Your task to perform on an android device: Open settings on Google Maps Image 0: 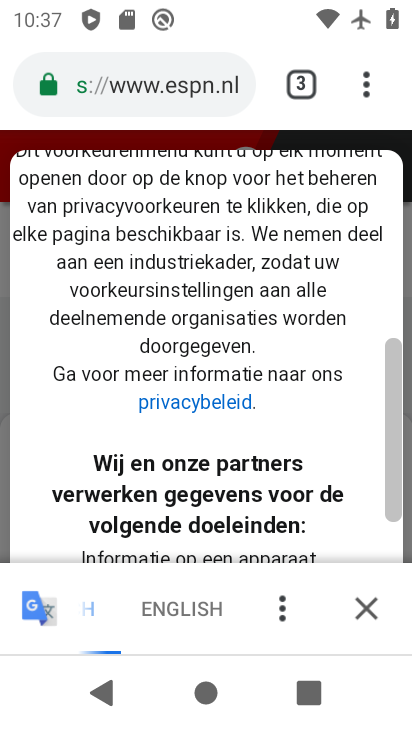
Step 0: press home button
Your task to perform on an android device: Open settings on Google Maps Image 1: 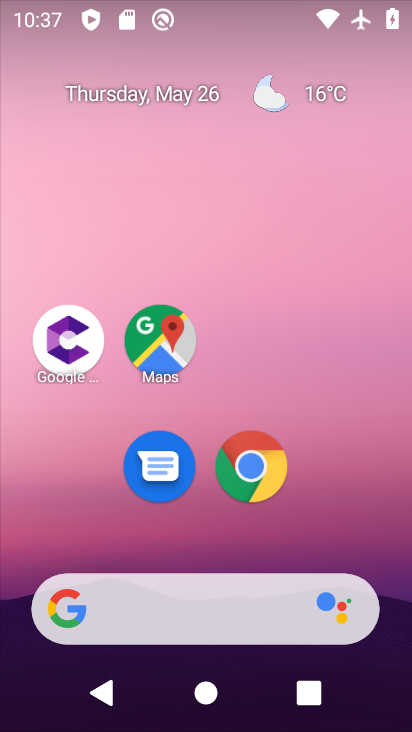
Step 1: click (149, 345)
Your task to perform on an android device: Open settings on Google Maps Image 2: 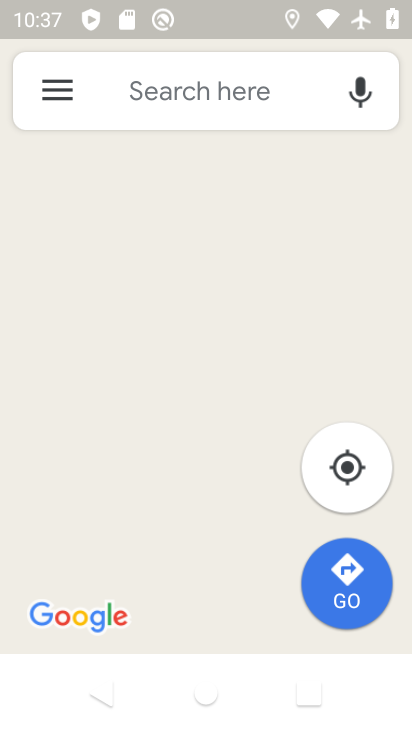
Step 2: click (57, 88)
Your task to perform on an android device: Open settings on Google Maps Image 3: 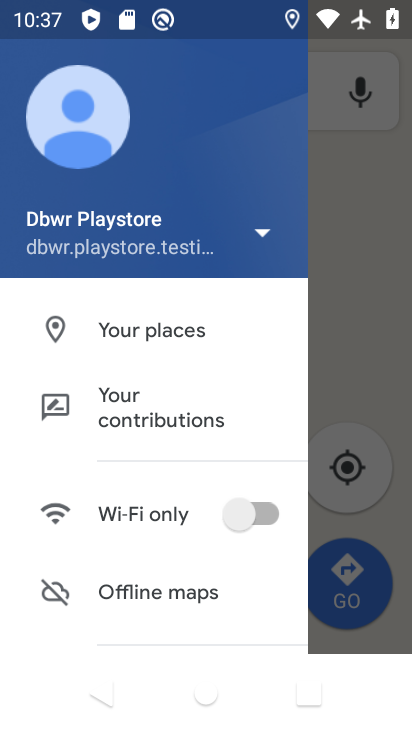
Step 3: drag from (150, 535) to (119, 180)
Your task to perform on an android device: Open settings on Google Maps Image 4: 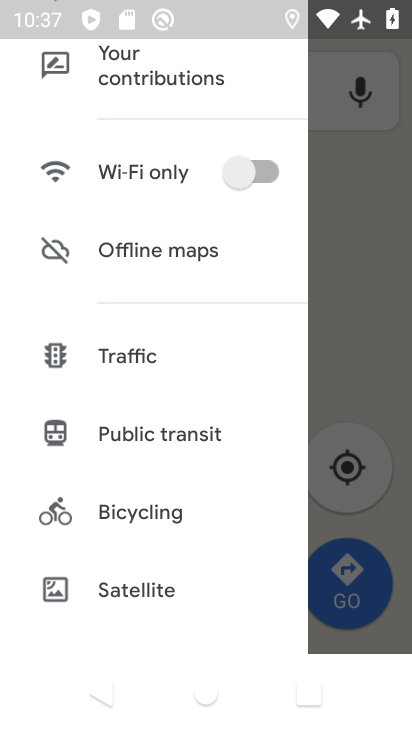
Step 4: drag from (178, 510) to (140, 177)
Your task to perform on an android device: Open settings on Google Maps Image 5: 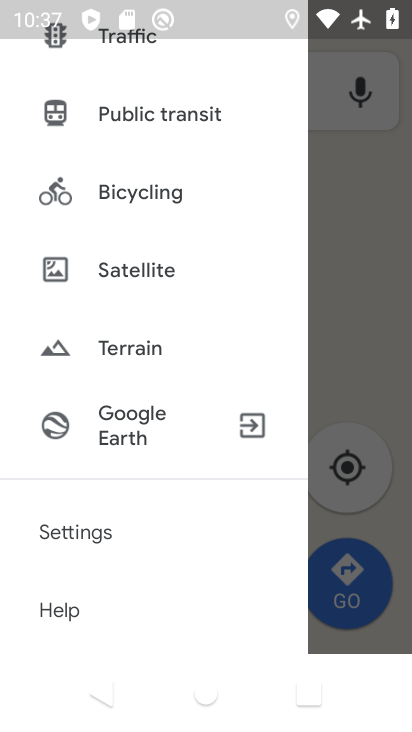
Step 5: click (80, 532)
Your task to perform on an android device: Open settings on Google Maps Image 6: 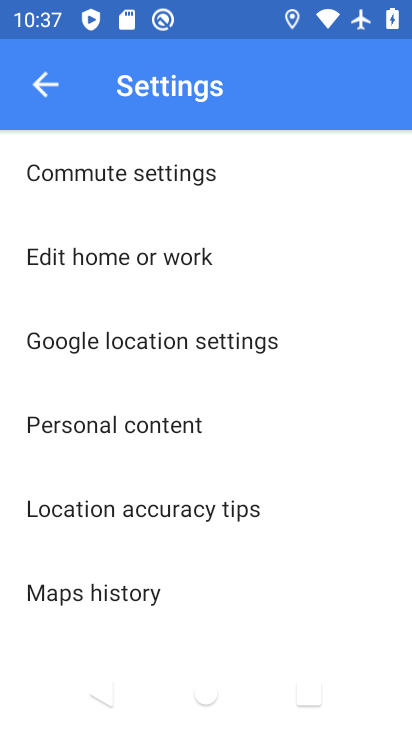
Step 6: task complete